Your task to perform on an android device: Go to Yahoo.com Image 0: 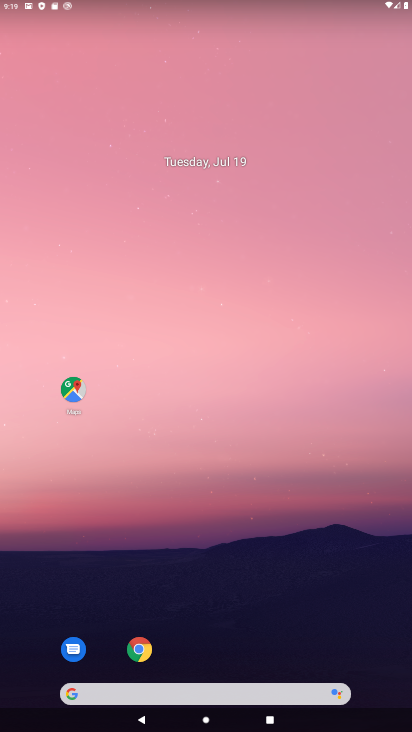
Step 0: drag from (353, 645) to (222, 75)
Your task to perform on an android device: Go to Yahoo.com Image 1: 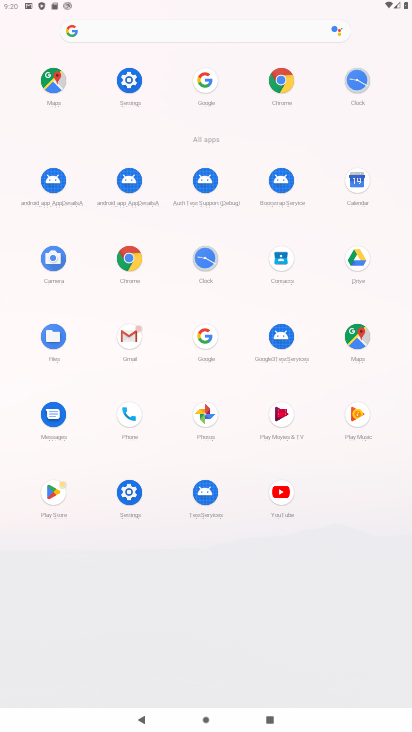
Step 1: click (204, 345)
Your task to perform on an android device: Go to Yahoo.com Image 2: 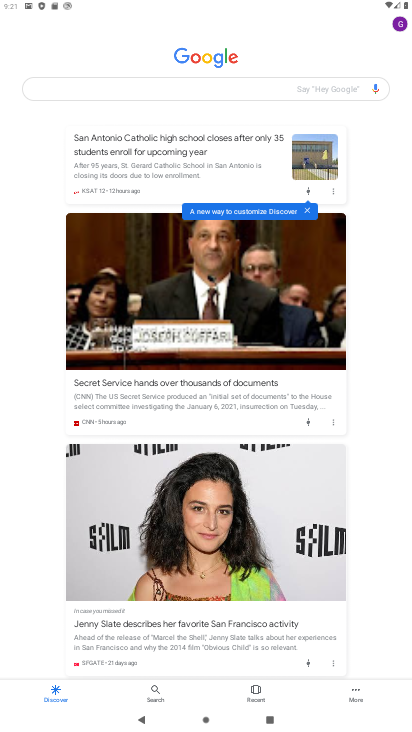
Step 2: click (159, 88)
Your task to perform on an android device: Go to Yahoo.com Image 3: 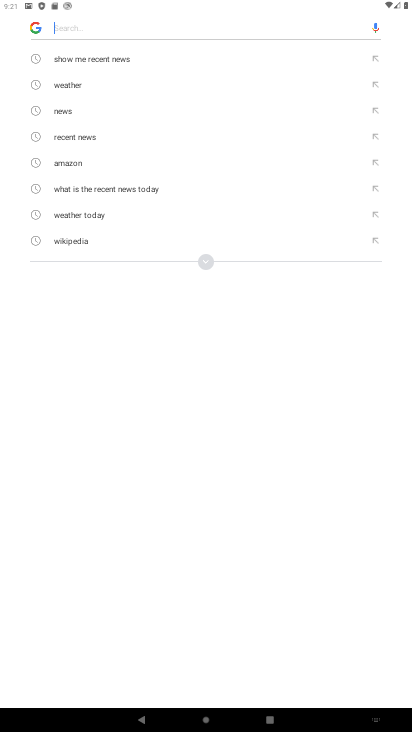
Step 3: type "Yahoo.com"
Your task to perform on an android device: Go to Yahoo.com Image 4: 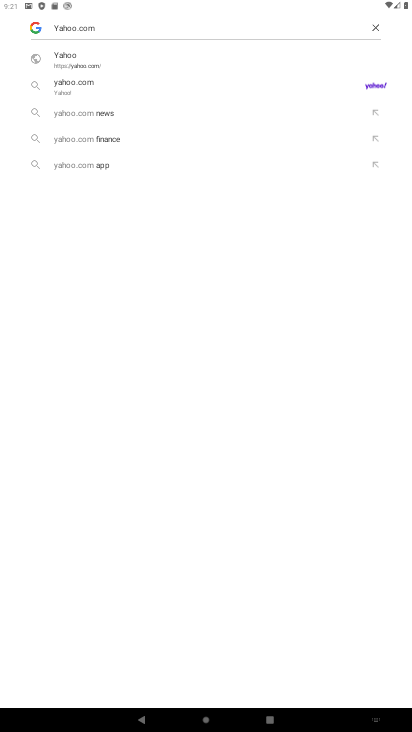
Step 4: click (92, 57)
Your task to perform on an android device: Go to Yahoo.com Image 5: 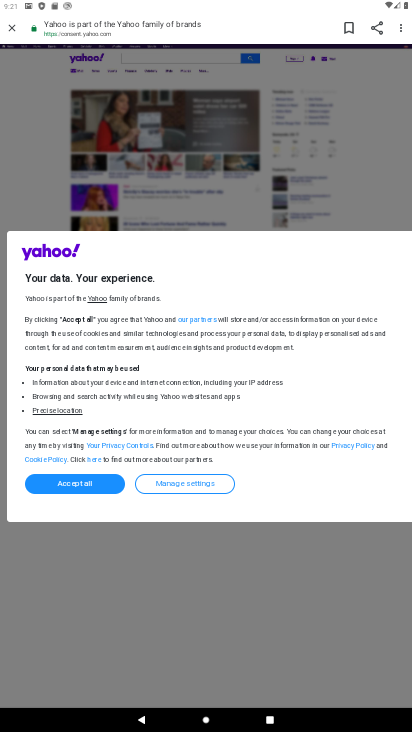
Step 5: task complete